Your task to perform on an android device: Show the shopping cart on ebay.com. Add asus rog to the cart on ebay.com, then select checkout. Image 0: 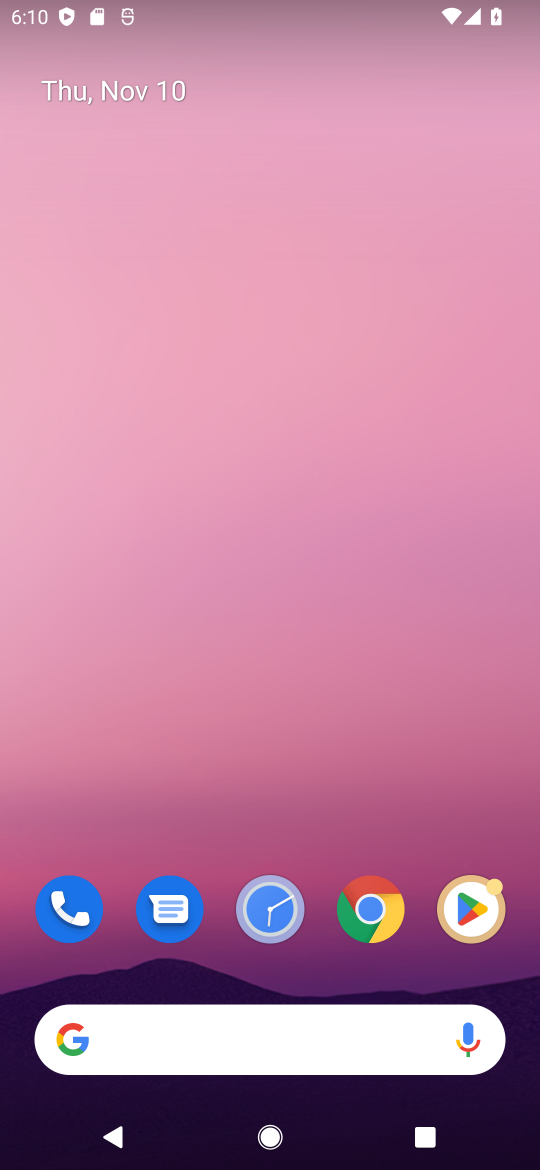
Step 0: drag from (261, 1117) to (294, 273)
Your task to perform on an android device: Show the shopping cart on ebay.com. Add asus rog to the cart on ebay.com, then select checkout. Image 1: 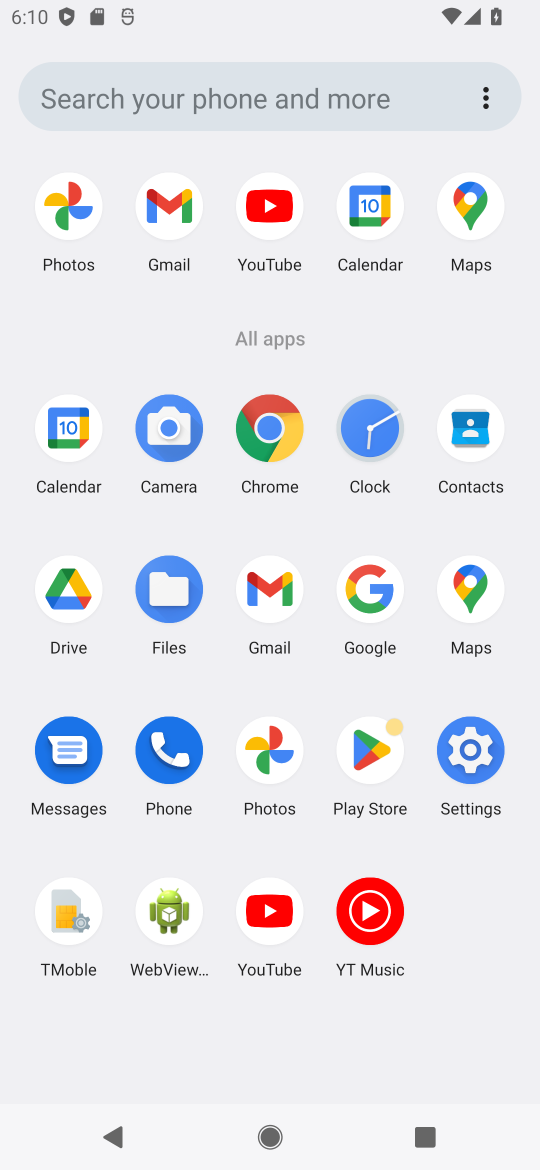
Step 1: click (370, 585)
Your task to perform on an android device: Show the shopping cart on ebay.com. Add asus rog to the cart on ebay.com, then select checkout. Image 2: 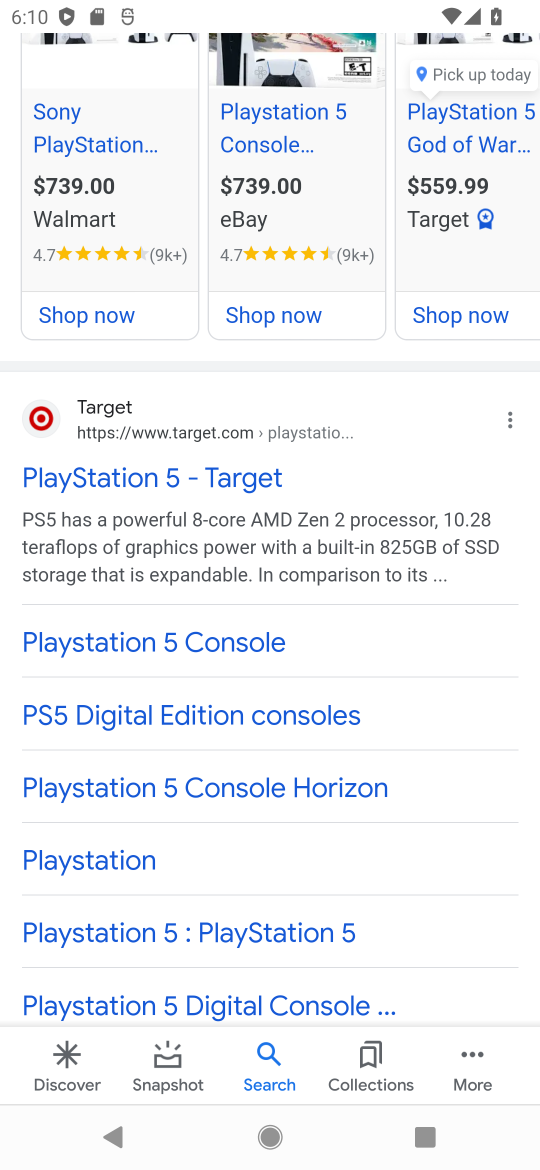
Step 2: drag from (235, 269) to (167, 982)
Your task to perform on an android device: Show the shopping cart on ebay.com. Add asus rog to the cart on ebay.com, then select checkout. Image 3: 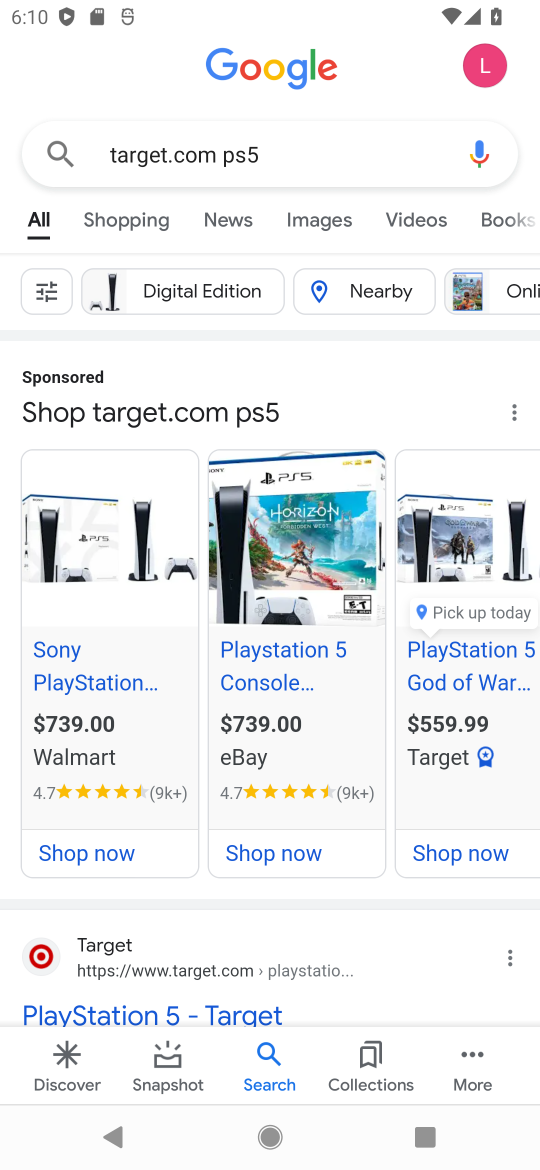
Step 3: click (280, 137)
Your task to perform on an android device: Show the shopping cart on ebay.com. Add asus rog to the cart on ebay.com, then select checkout. Image 4: 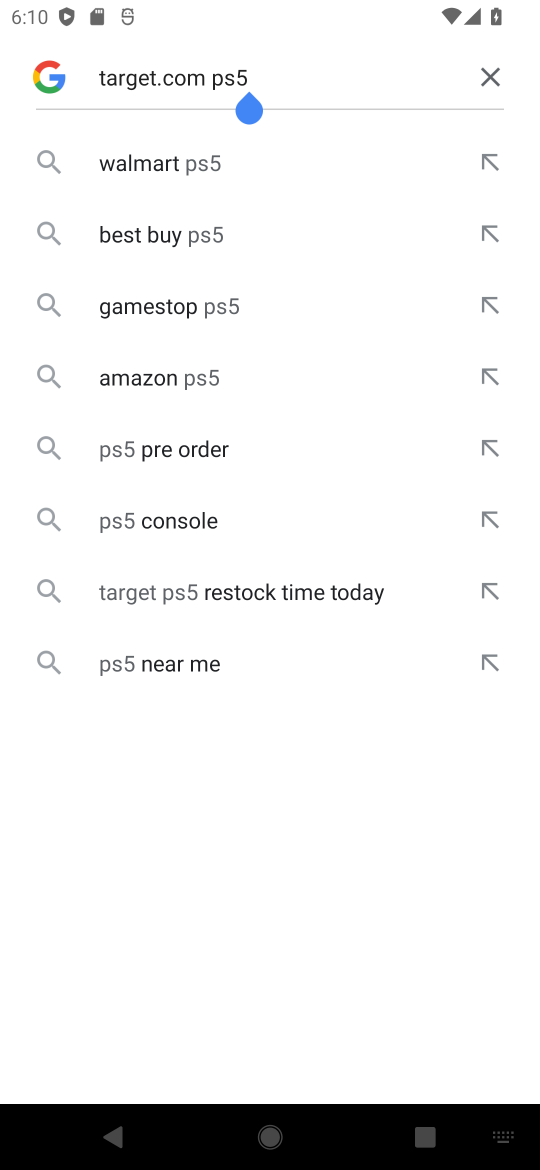
Step 4: click (483, 68)
Your task to perform on an android device: Show the shopping cart on ebay.com. Add asus rog to the cart on ebay.com, then select checkout. Image 5: 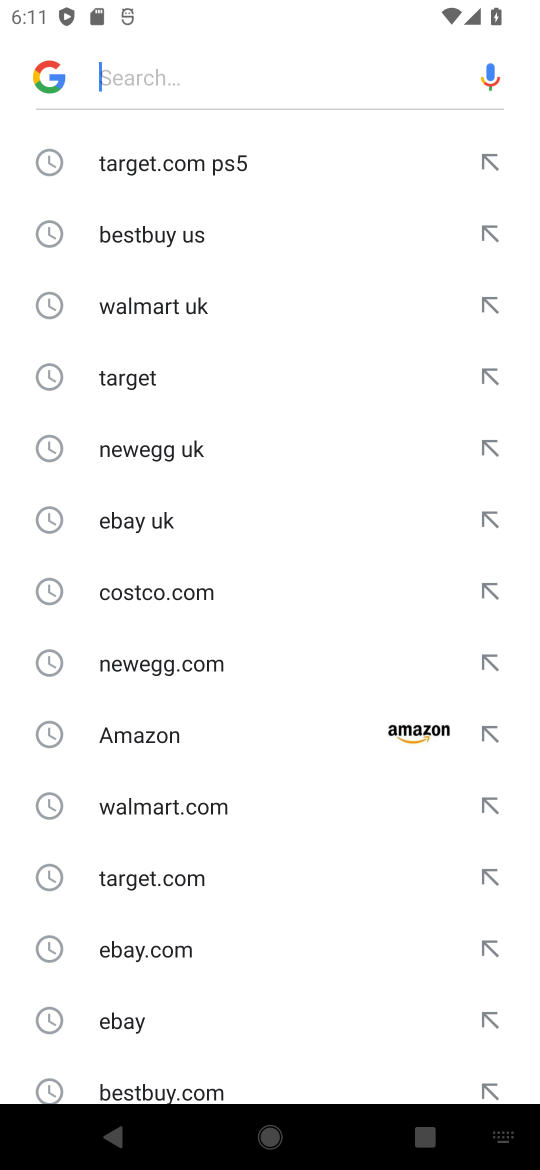
Step 5: click (189, 67)
Your task to perform on an android device: Show the shopping cart on ebay.com. Add asus rog to the cart on ebay.com, then select checkout. Image 6: 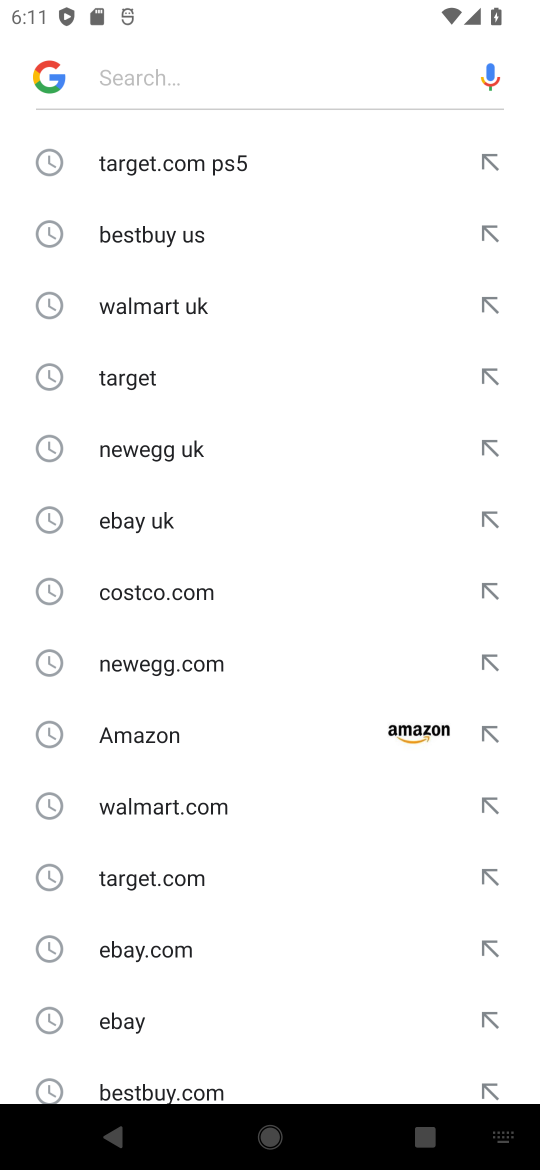
Step 6: type "ebay "
Your task to perform on an android device: Show the shopping cart on ebay.com. Add asus rog to the cart on ebay.com, then select checkout. Image 7: 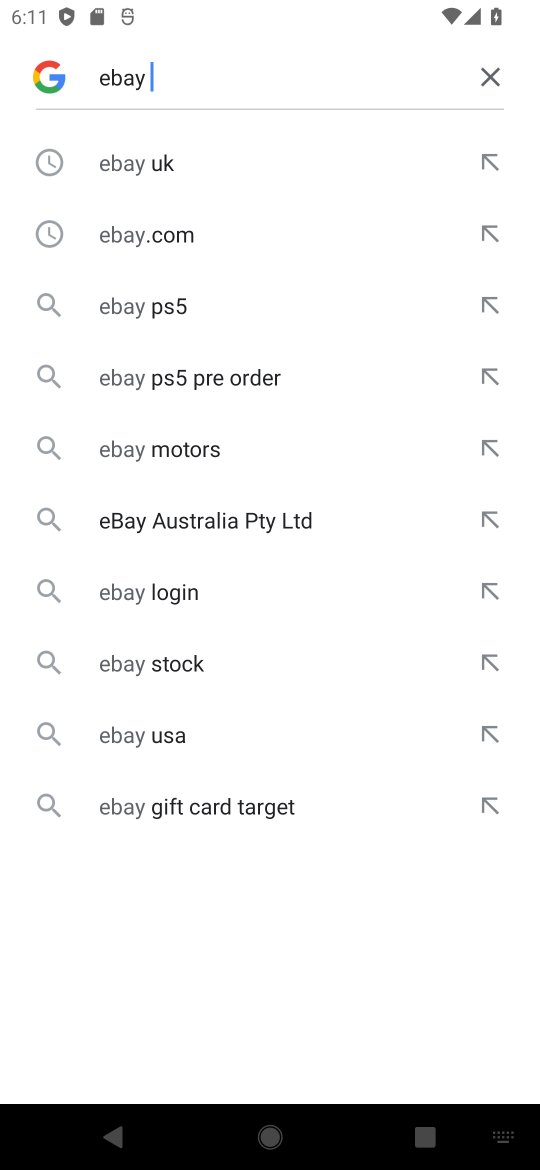
Step 7: click (149, 167)
Your task to perform on an android device: Show the shopping cart on ebay.com. Add asus rog to the cart on ebay.com, then select checkout. Image 8: 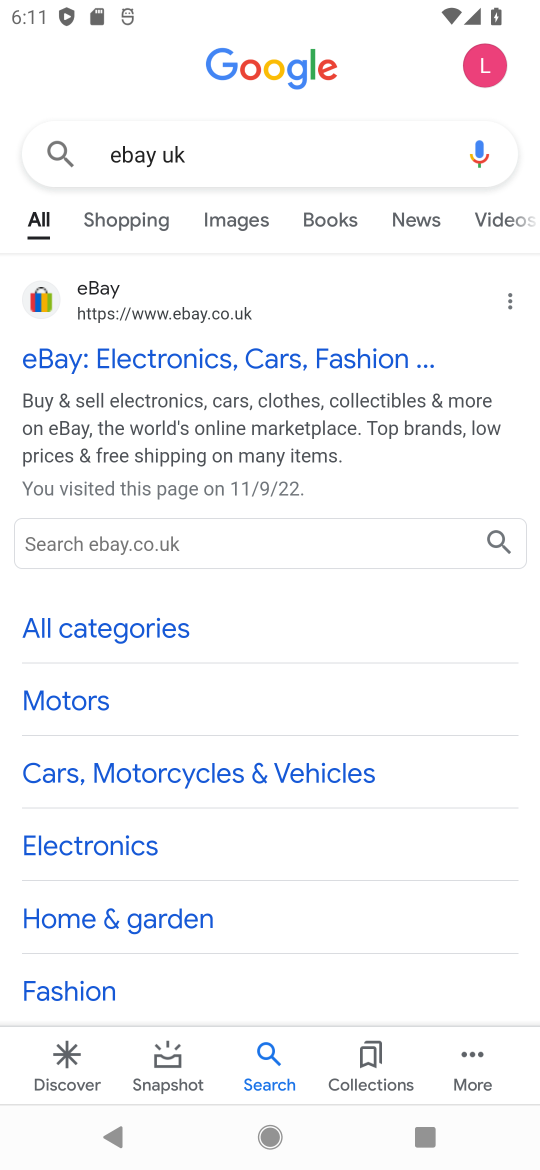
Step 8: click (25, 291)
Your task to perform on an android device: Show the shopping cart on ebay.com. Add asus rog to the cart on ebay.com, then select checkout. Image 9: 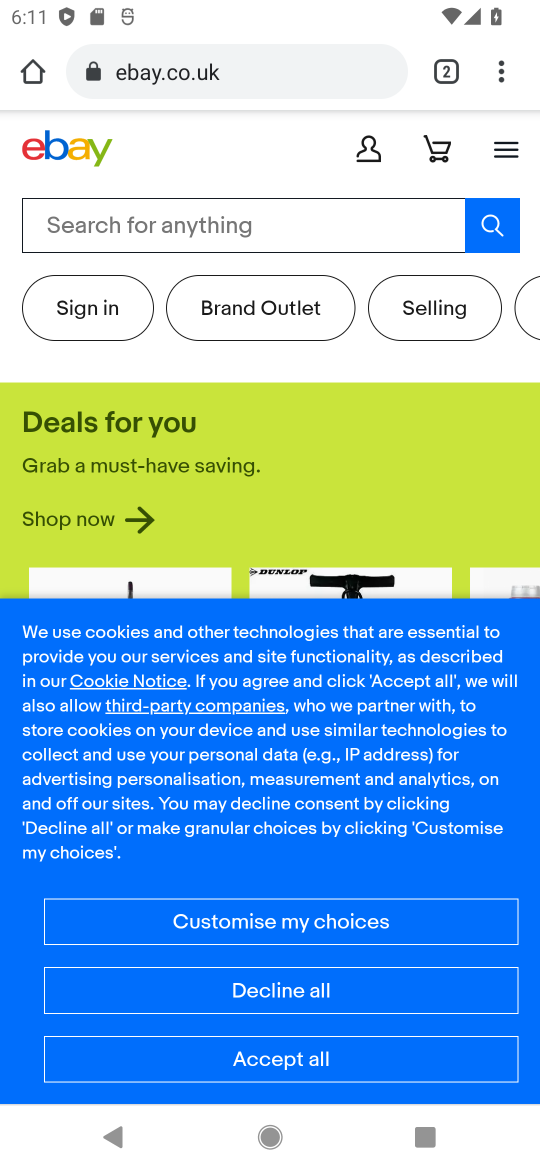
Step 9: click (328, 1060)
Your task to perform on an android device: Show the shopping cart on ebay.com. Add asus rog to the cart on ebay.com, then select checkout. Image 10: 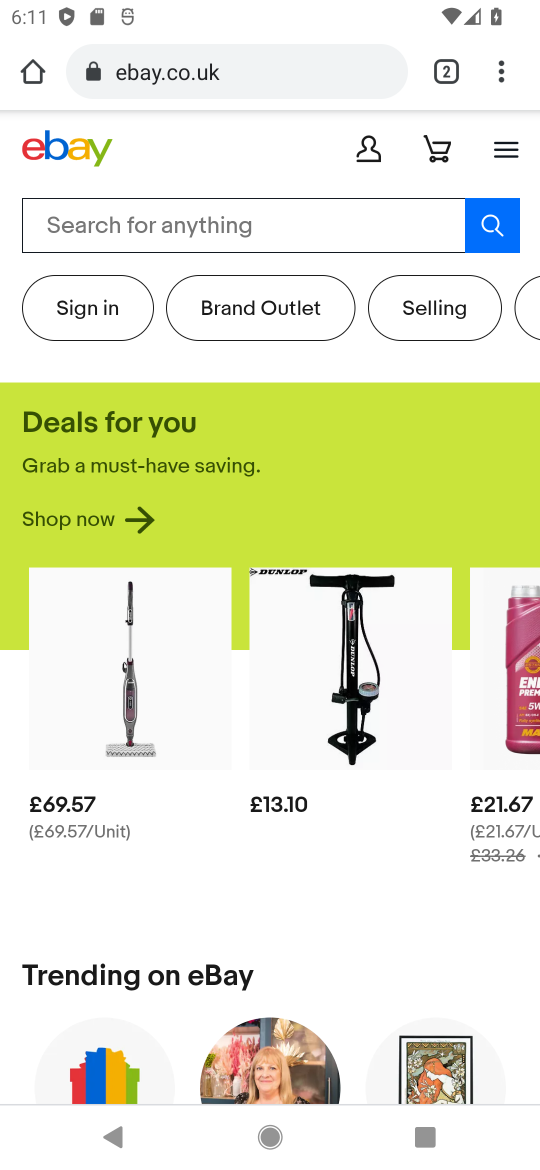
Step 10: click (236, 210)
Your task to perform on an android device: Show the shopping cart on ebay.com. Add asus rog to the cart on ebay.com, then select checkout. Image 11: 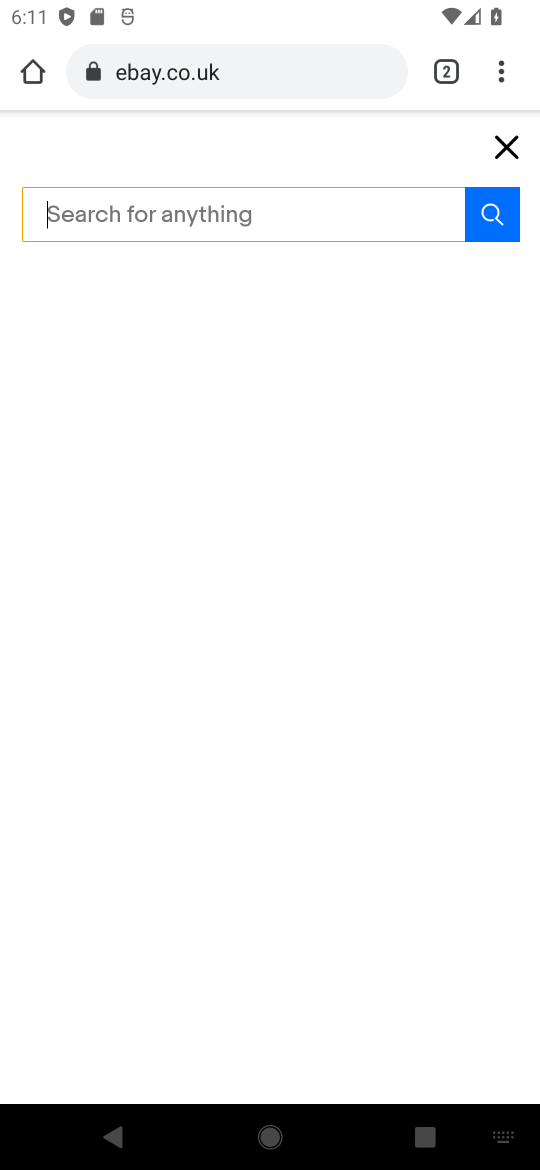
Step 11: type "asus rog "
Your task to perform on an android device: Show the shopping cart on ebay.com. Add asus rog to the cart on ebay.com, then select checkout. Image 12: 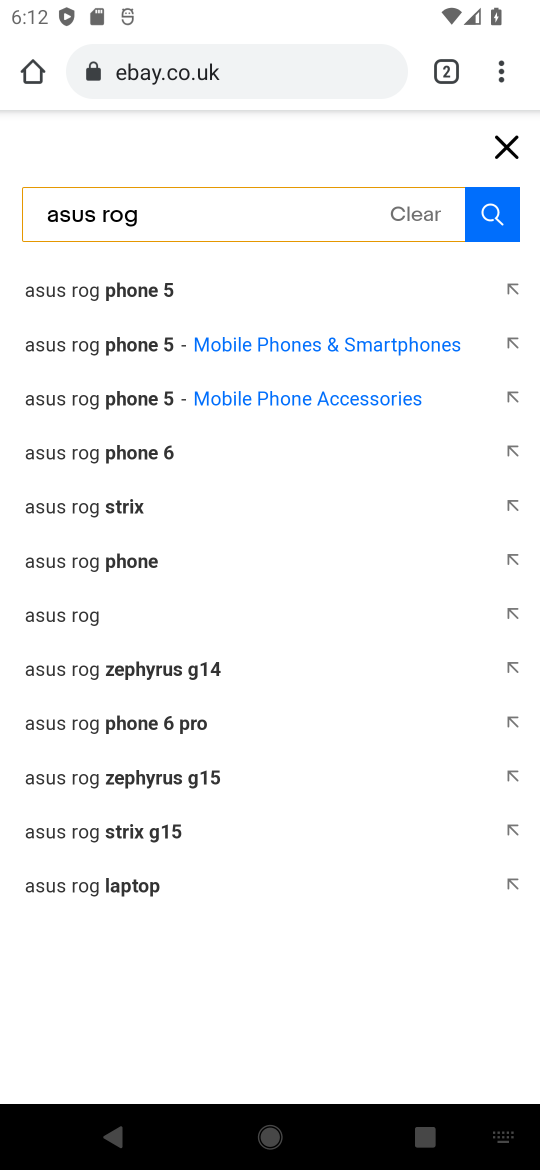
Step 12: click (93, 283)
Your task to perform on an android device: Show the shopping cart on ebay.com. Add asus rog to the cart on ebay.com, then select checkout. Image 13: 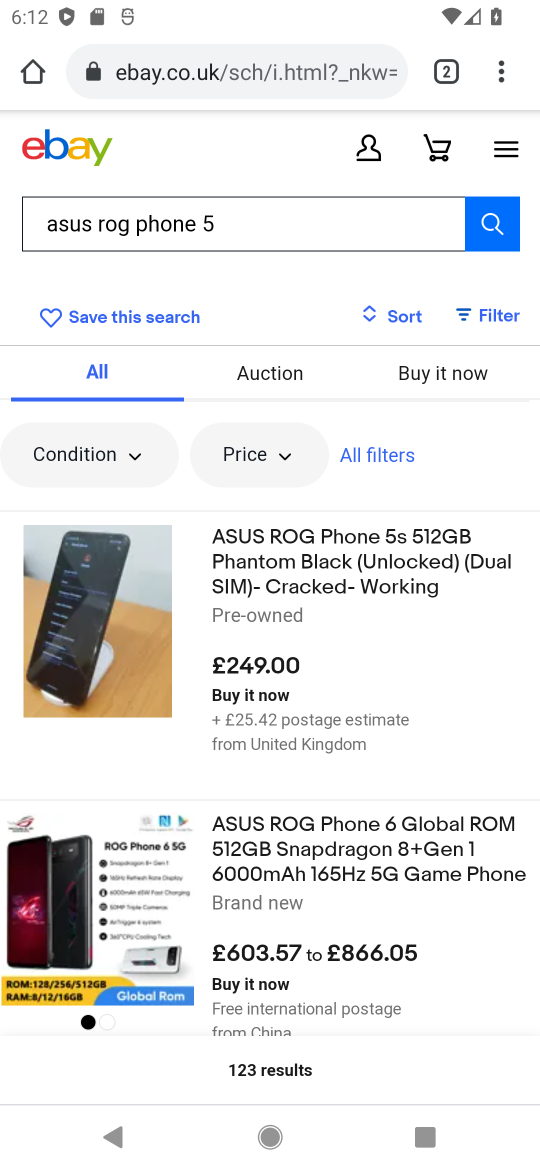
Step 13: click (250, 528)
Your task to perform on an android device: Show the shopping cart on ebay.com. Add asus rog to the cart on ebay.com, then select checkout. Image 14: 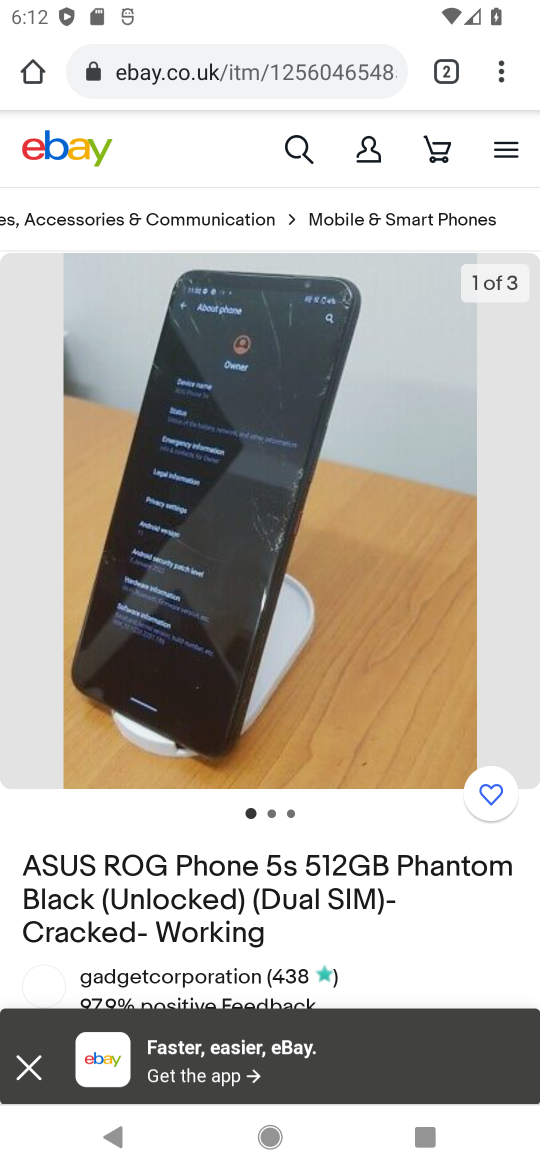
Step 14: click (35, 1081)
Your task to perform on an android device: Show the shopping cart on ebay.com. Add asus rog to the cart on ebay.com, then select checkout. Image 15: 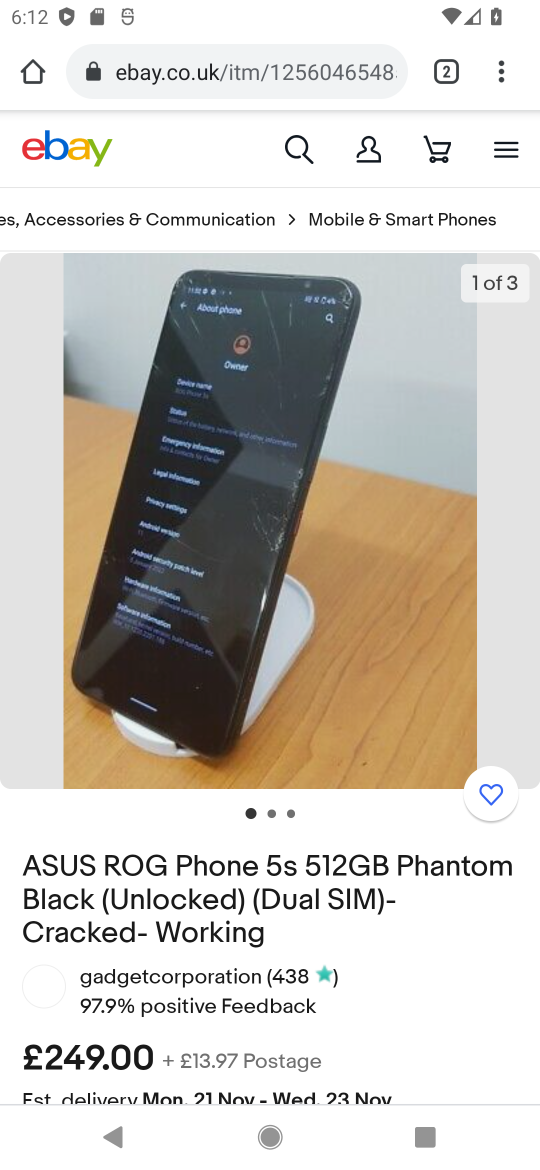
Step 15: drag from (188, 980) to (212, 382)
Your task to perform on an android device: Show the shopping cart on ebay.com. Add asus rog to the cart on ebay.com, then select checkout. Image 16: 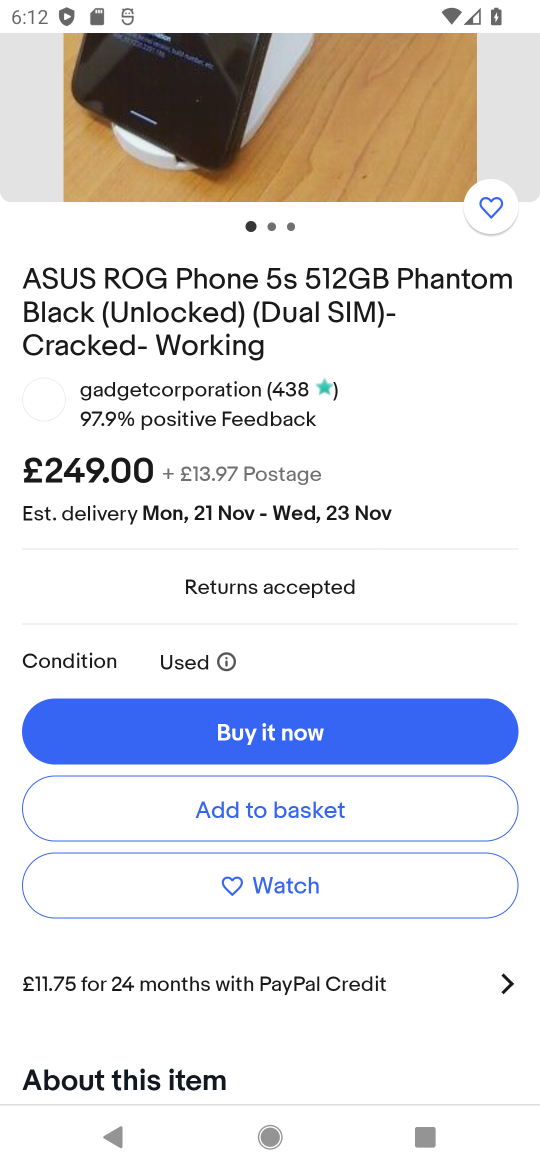
Step 16: click (262, 807)
Your task to perform on an android device: Show the shopping cart on ebay.com. Add asus rog to the cart on ebay.com, then select checkout. Image 17: 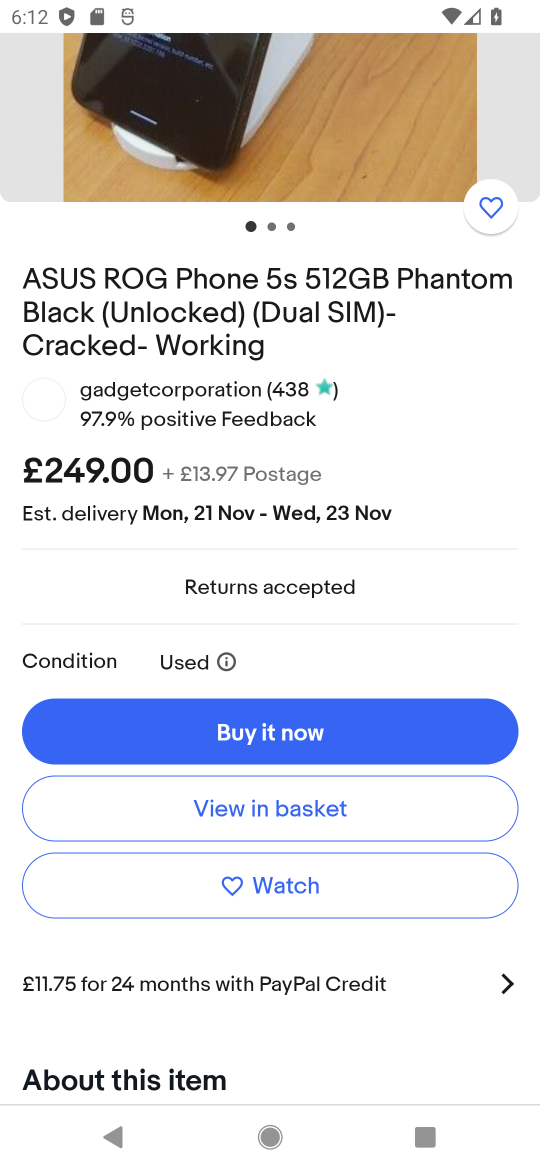
Step 17: task complete